Your task to perform on an android device: Open ESPN.com Image 0: 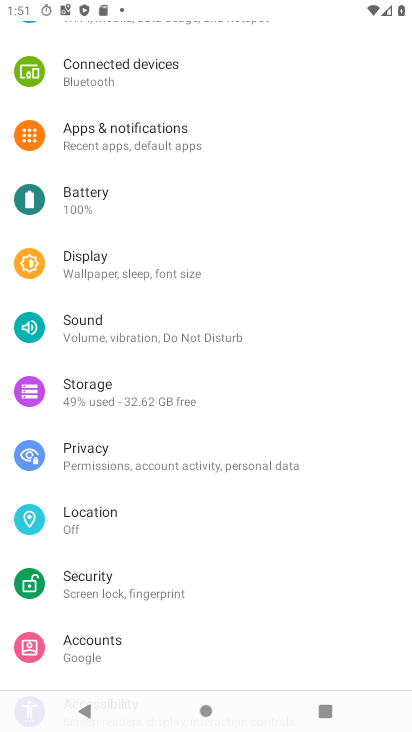
Step 0: press home button
Your task to perform on an android device: Open ESPN.com Image 1: 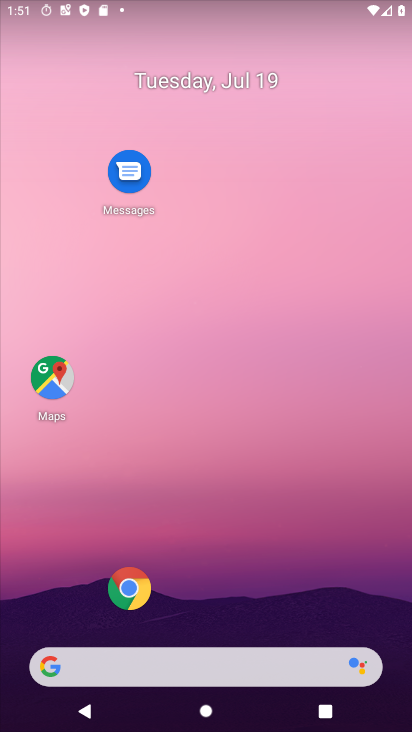
Step 1: click (126, 662)
Your task to perform on an android device: Open ESPN.com Image 2: 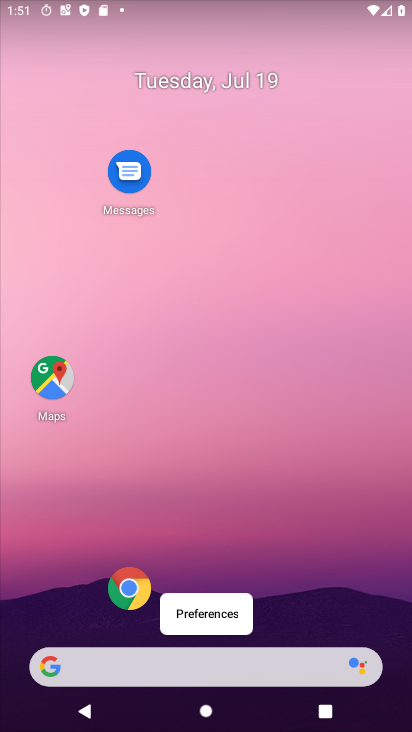
Step 2: click (117, 666)
Your task to perform on an android device: Open ESPN.com Image 3: 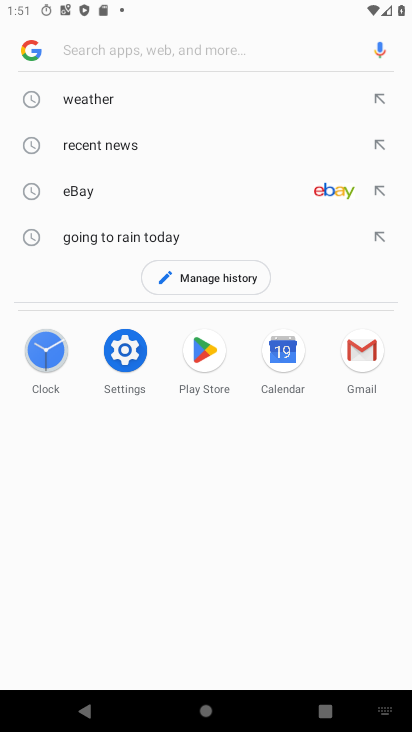
Step 3: type " ESPN.com"
Your task to perform on an android device: Open ESPN.com Image 4: 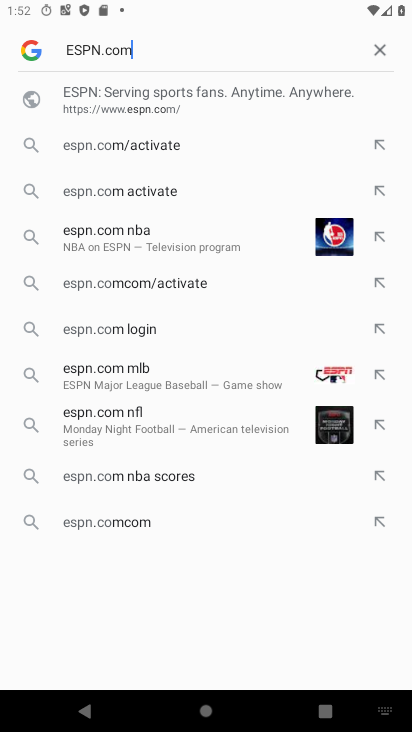
Step 4: type ""
Your task to perform on an android device: Open ESPN.com Image 5: 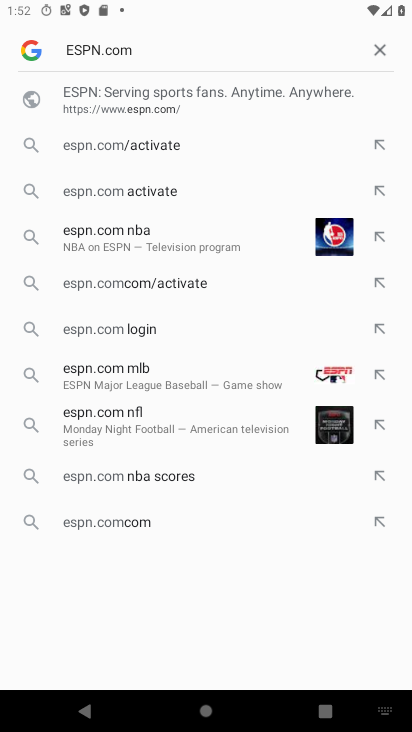
Step 5: click (78, 94)
Your task to perform on an android device: Open ESPN.com Image 6: 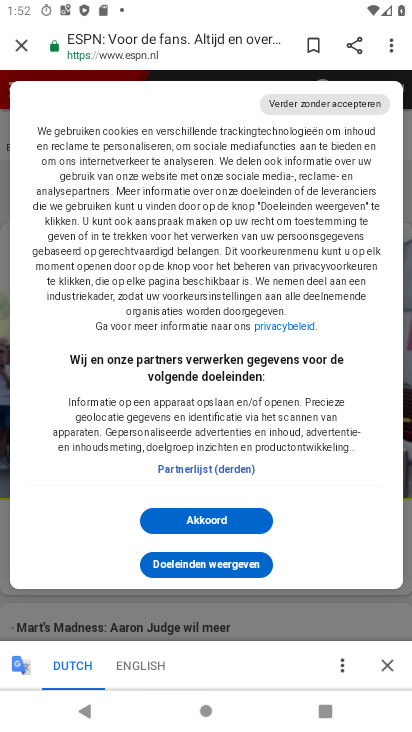
Step 6: task complete